Your task to perform on an android device: make emails show in primary in the gmail app Image 0: 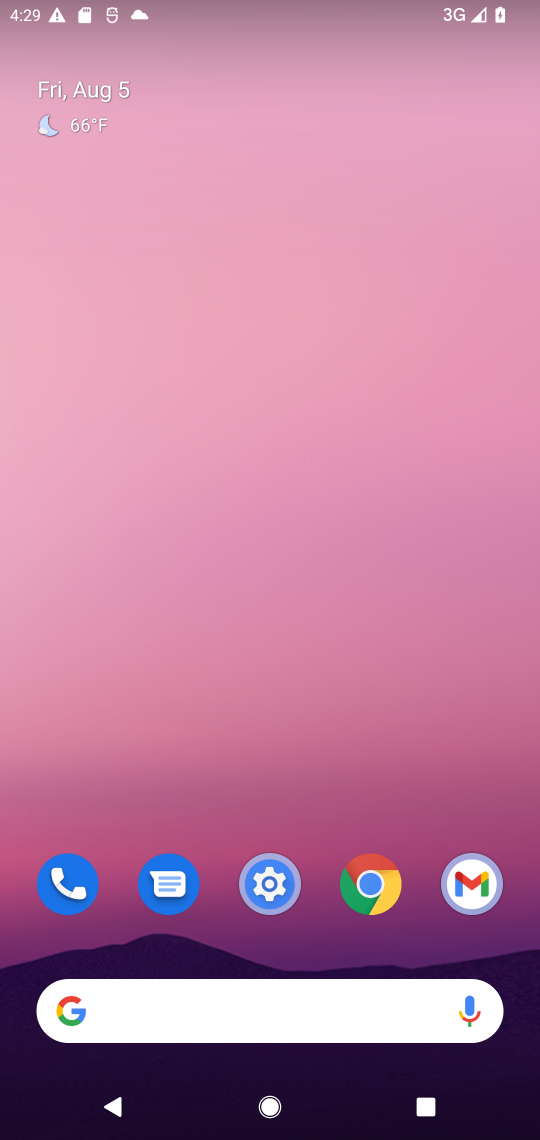
Step 0: drag from (483, 945) to (276, 0)
Your task to perform on an android device: make emails show in primary in the gmail app Image 1: 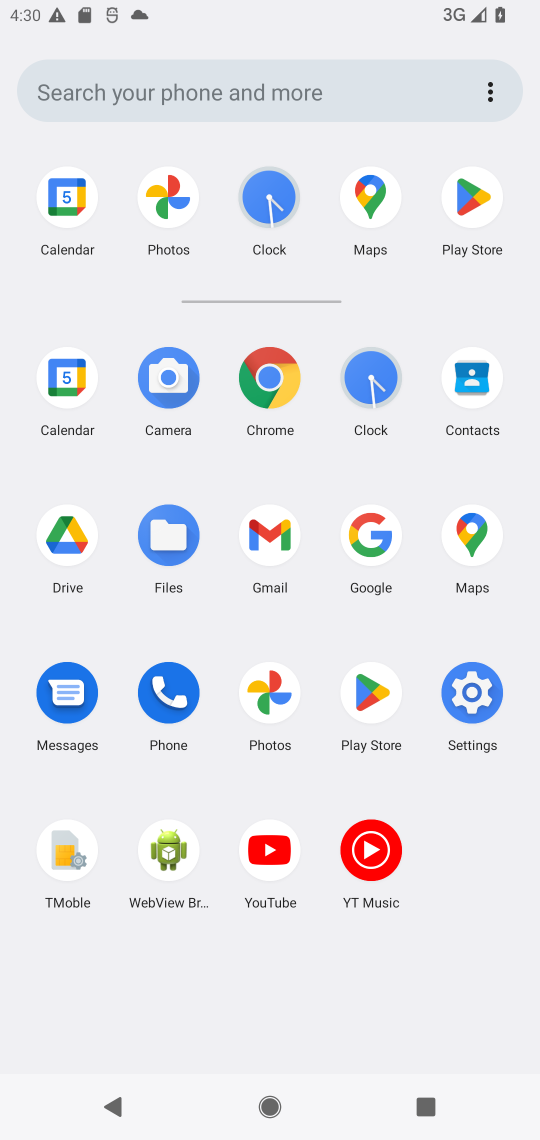
Step 1: click (263, 538)
Your task to perform on an android device: make emails show in primary in the gmail app Image 2: 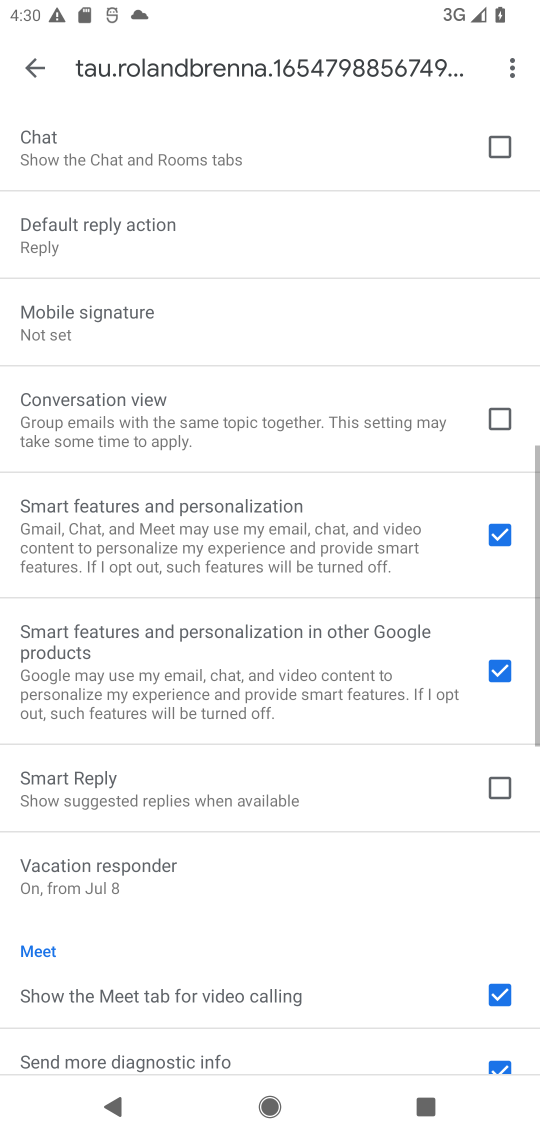
Step 2: task complete